Your task to perform on an android device: Search for razer deathadder on costco, select the first entry, and add it to the cart. Image 0: 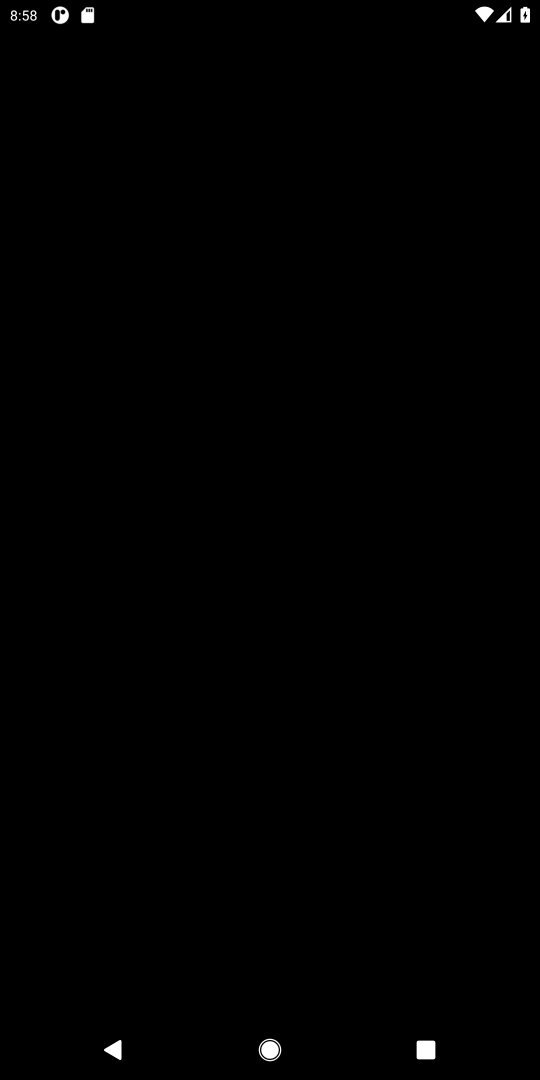
Step 0: press home button
Your task to perform on an android device: Search for razer deathadder on costco, select the first entry, and add it to the cart. Image 1: 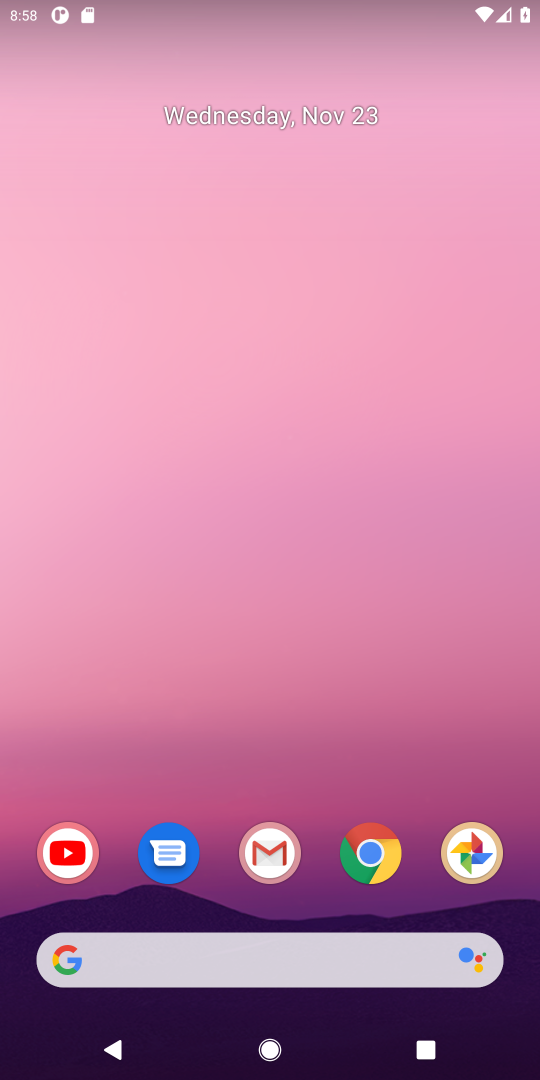
Step 1: click (372, 855)
Your task to perform on an android device: Search for razer deathadder on costco, select the first entry, and add it to the cart. Image 2: 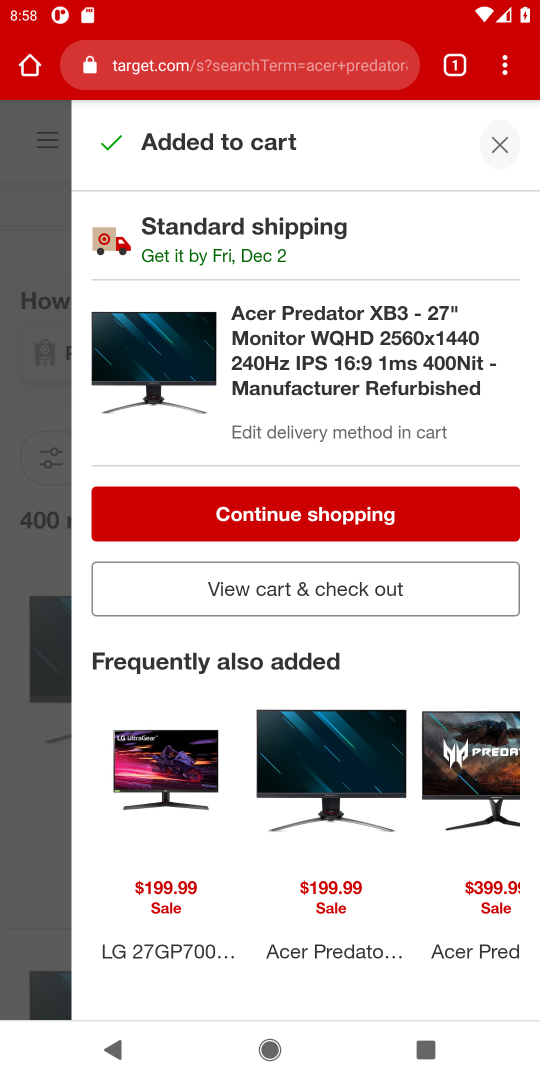
Step 2: click (217, 62)
Your task to perform on an android device: Search for razer deathadder on costco, select the first entry, and add it to the cart. Image 3: 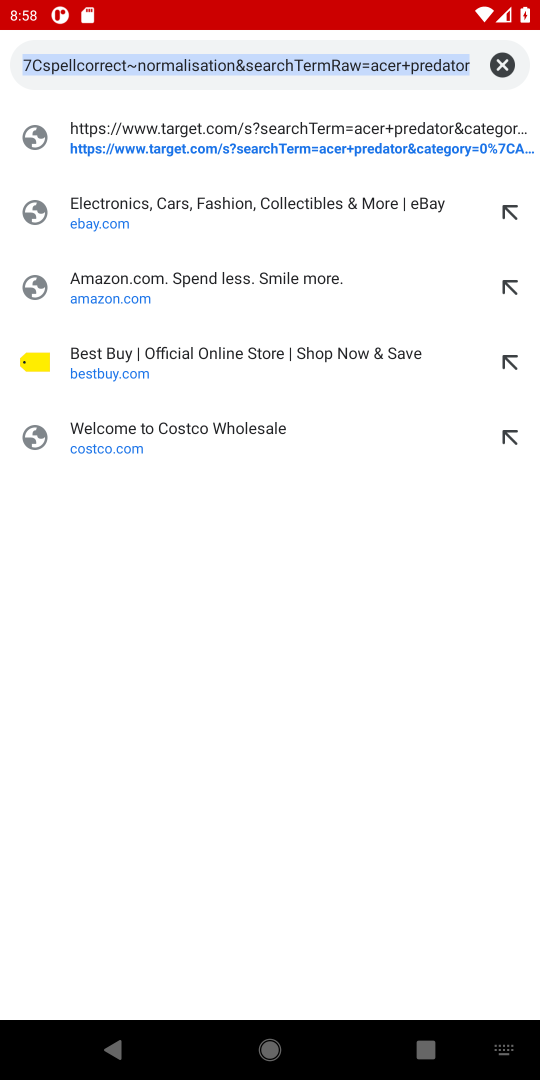
Step 3: click (104, 449)
Your task to perform on an android device: Search for razer deathadder on costco, select the first entry, and add it to the cart. Image 4: 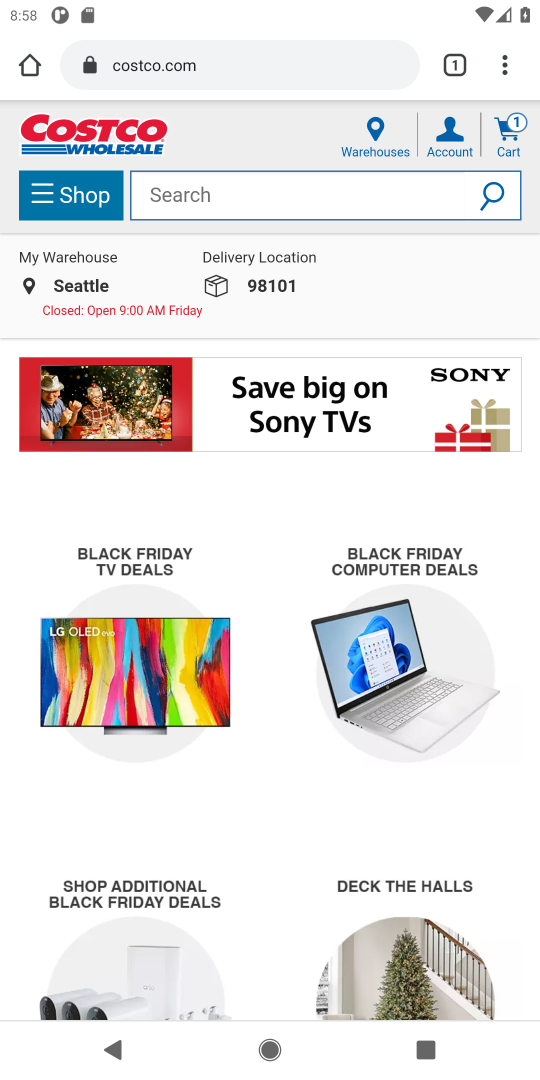
Step 4: click (178, 201)
Your task to perform on an android device: Search for razer deathadder on costco, select the first entry, and add it to the cart. Image 5: 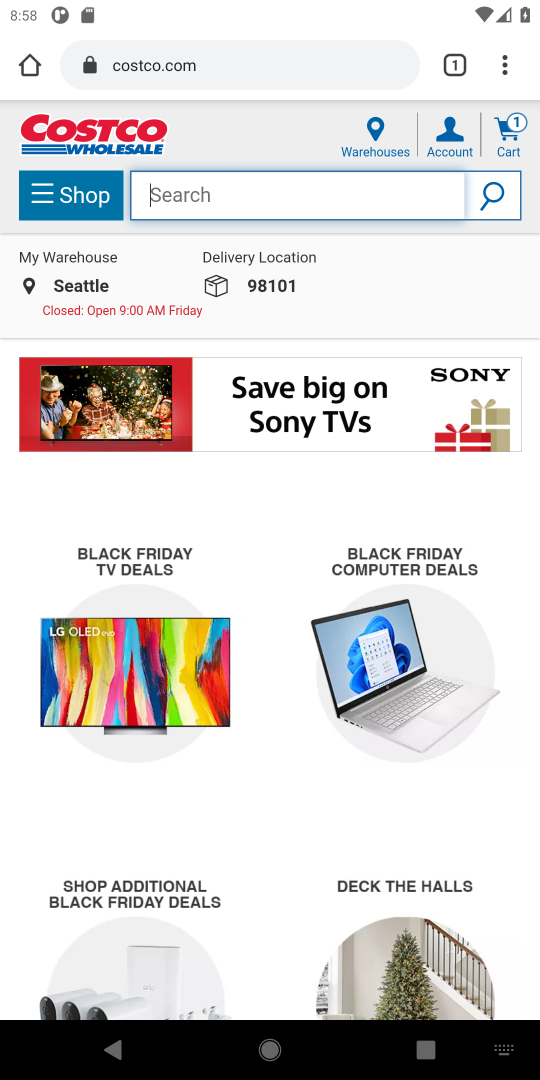
Step 5: type "razer deathadder"
Your task to perform on an android device: Search for razer deathadder on costco, select the first entry, and add it to the cart. Image 6: 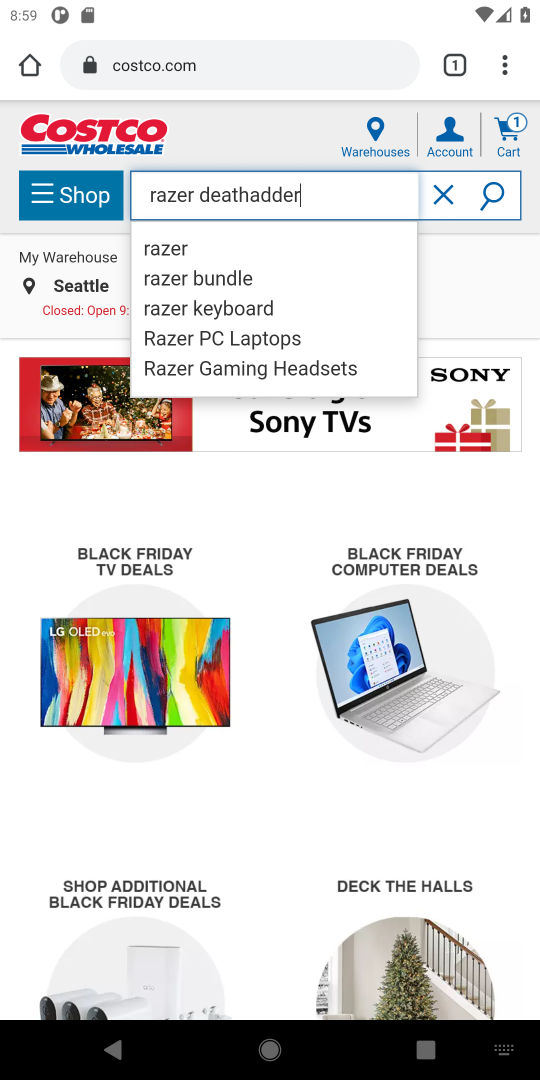
Step 6: click (503, 196)
Your task to perform on an android device: Search for razer deathadder on costco, select the first entry, and add it to the cart. Image 7: 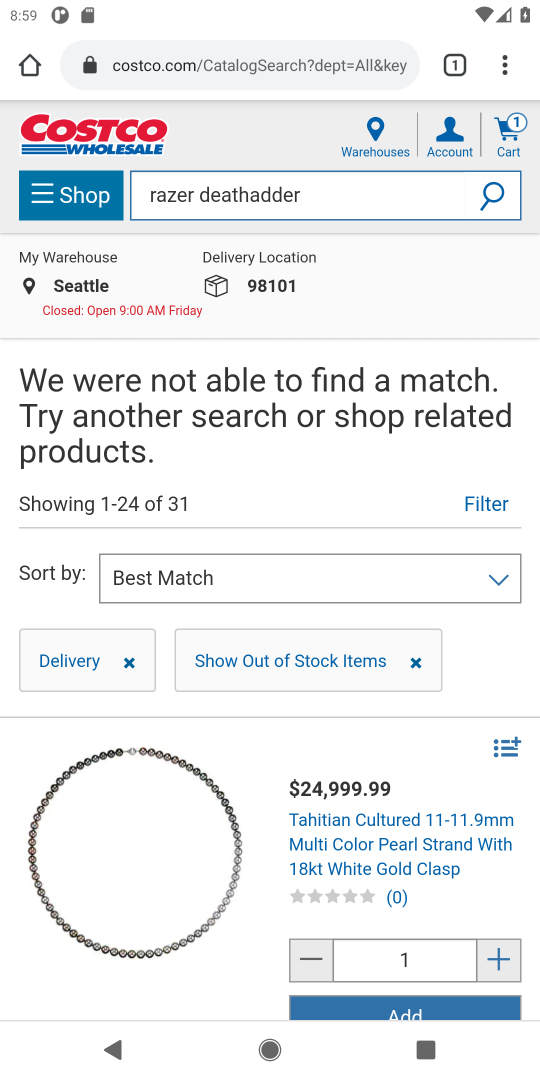
Step 7: task complete